Your task to perform on an android device: turn pop-ups on in chrome Image 0: 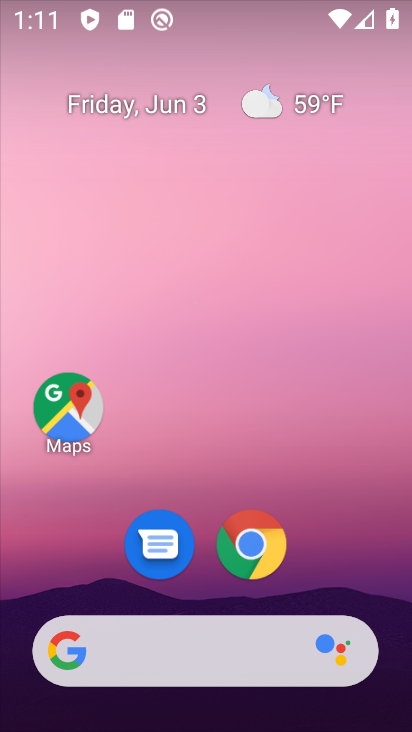
Step 0: click (258, 571)
Your task to perform on an android device: turn pop-ups on in chrome Image 1: 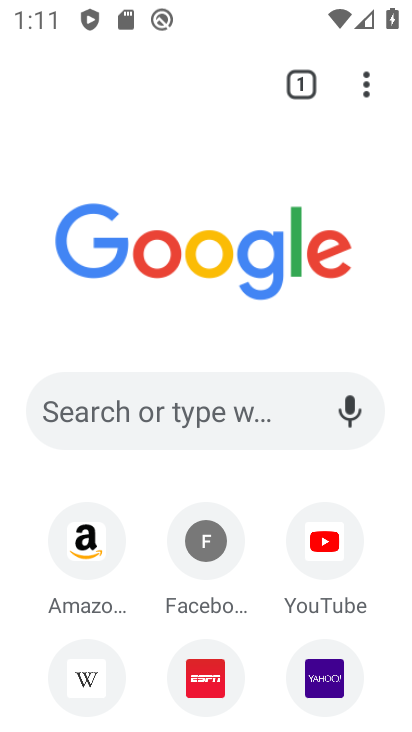
Step 1: drag from (371, 84) to (91, 587)
Your task to perform on an android device: turn pop-ups on in chrome Image 2: 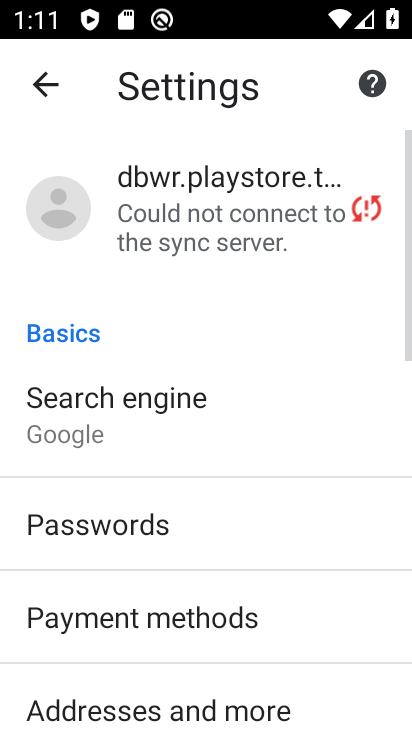
Step 2: drag from (288, 575) to (38, 198)
Your task to perform on an android device: turn pop-ups on in chrome Image 3: 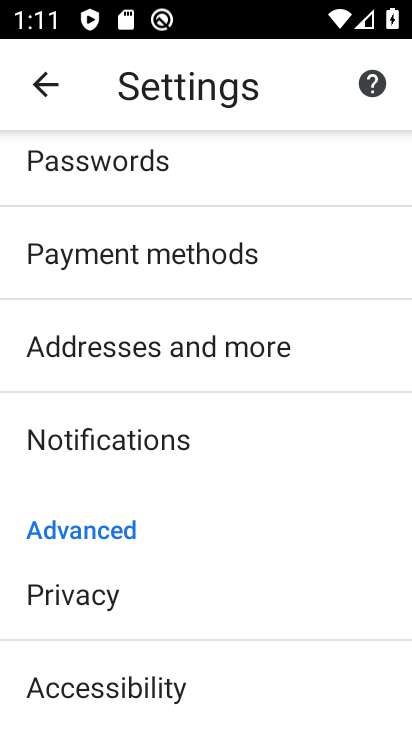
Step 3: drag from (97, 682) to (151, 719)
Your task to perform on an android device: turn pop-ups on in chrome Image 4: 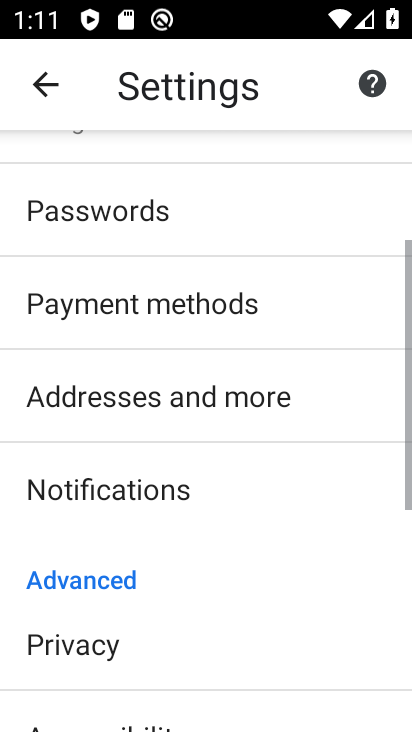
Step 4: drag from (205, 551) to (180, 70)
Your task to perform on an android device: turn pop-ups on in chrome Image 5: 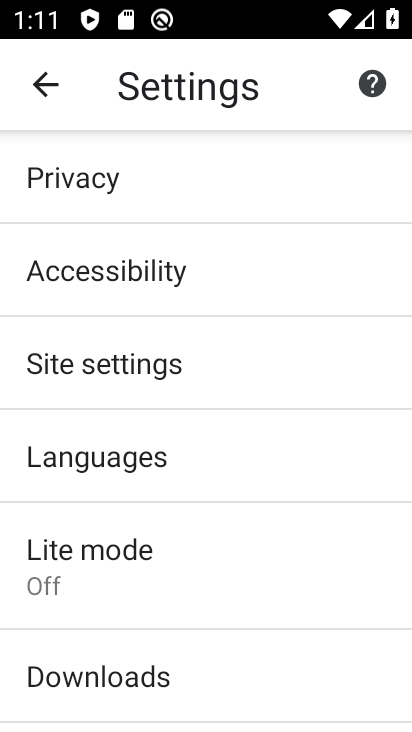
Step 5: click (126, 386)
Your task to perform on an android device: turn pop-ups on in chrome Image 6: 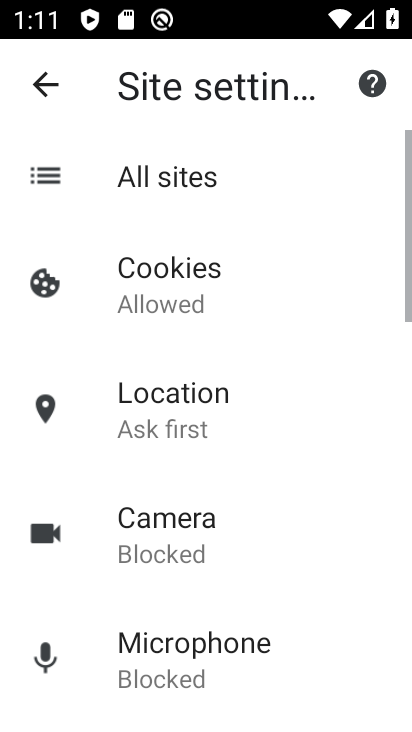
Step 6: drag from (140, 679) to (66, 18)
Your task to perform on an android device: turn pop-ups on in chrome Image 7: 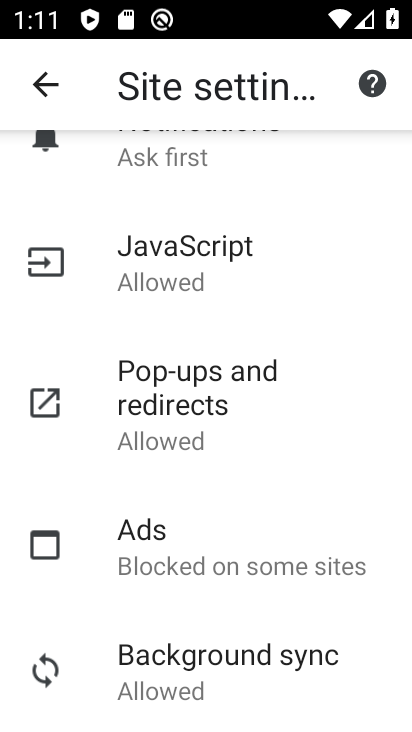
Step 7: click (130, 400)
Your task to perform on an android device: turn pop-ups on in chrome Image 8: 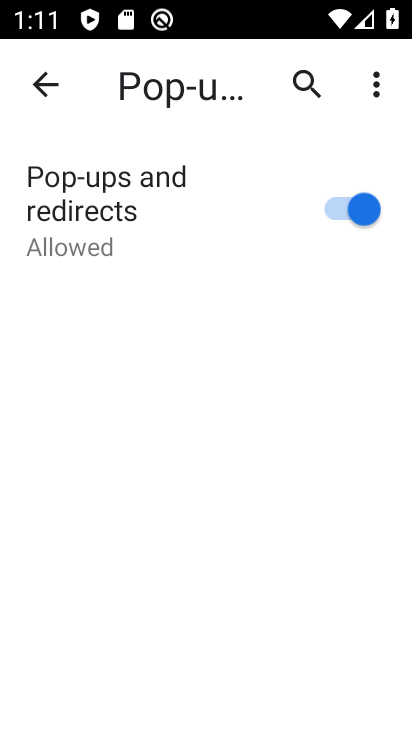
Step 8: task complete